Your task to perform on an android device: Open Maps and search for coffee Image 0: 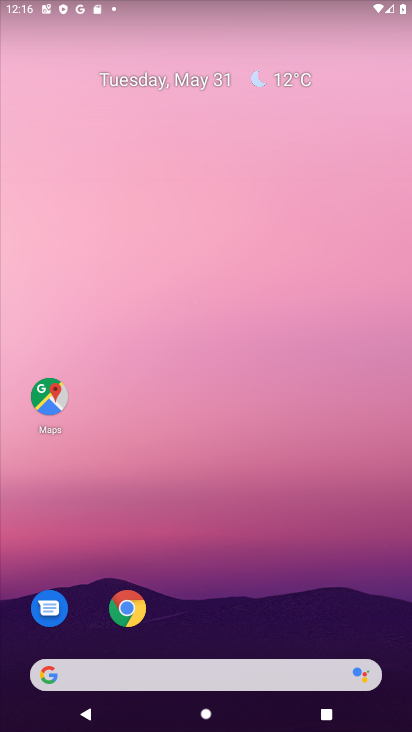
Step 0: click (53, 387)
Your task to perform on an android device: Open Maps and search for coffee Image 1: 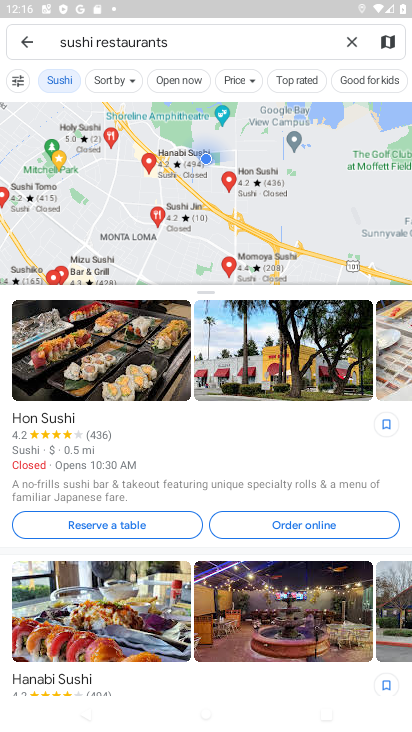
Step 1: click (353, 49)
Your task to perform on an android device: Open Maps and search for coffee Image 2: 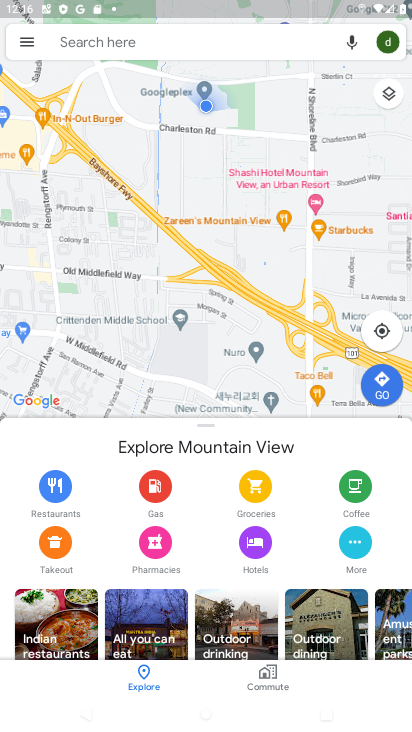
Step 2: click (28, 45)
Your task to perform on an android device: Open Maps and search for coffee Image 3: 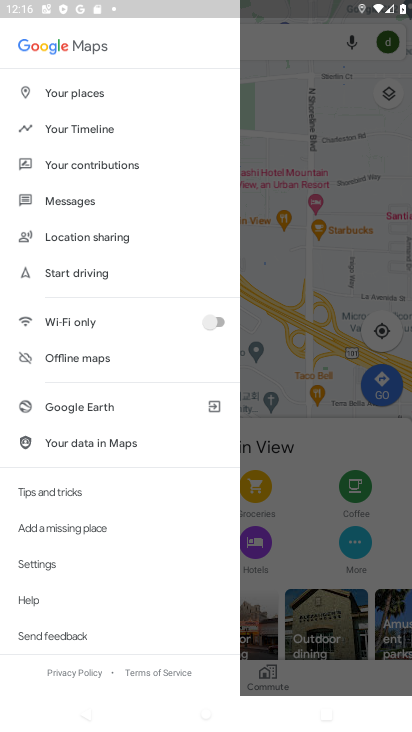
Step 3: click (286, 61)
Your task to perform on an android device: Open Maps and search for coffee Image 4: 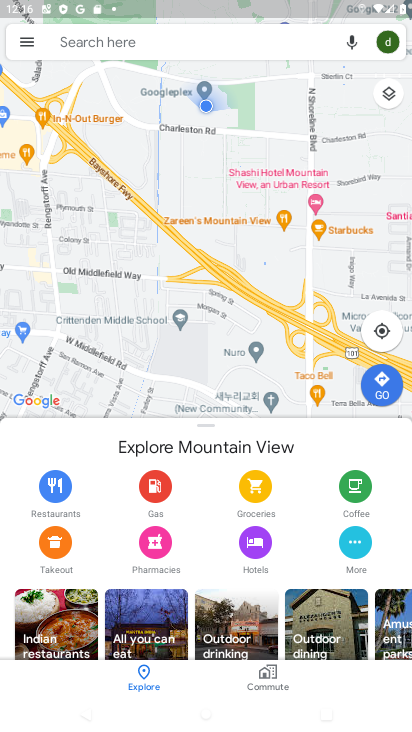
Step 4: click (205, 50)
Your task to perform on an android device: Open Maps and search for coffee Image 5: 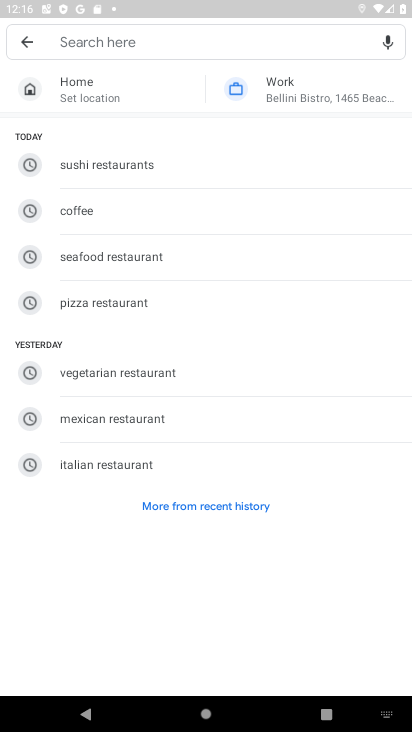
Step 5: click (106, 204)
Your task to perform on an android device: Open Maps and search for coffee Image 6: 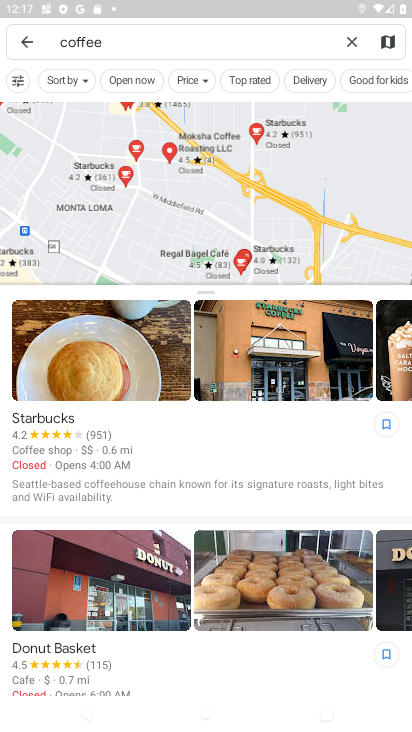
Step 6: task complete